Your task to perform on an android device: check storage Image 0: 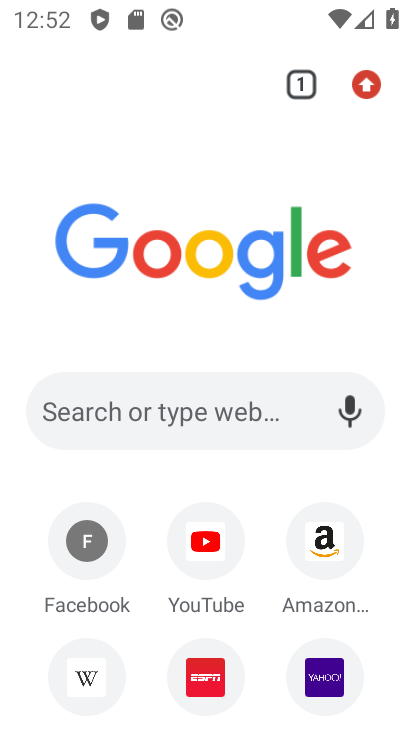
Step 0: press home button
Your task to perform on an android device: check storage Image 1: 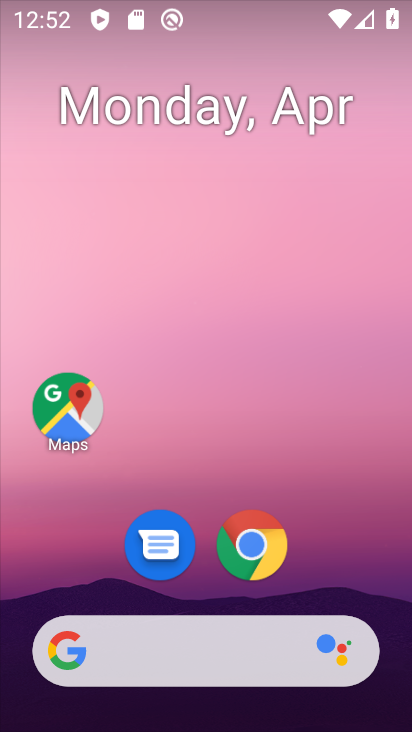
Step 1: drag from (224, 586) to (212, 163)
Your task to perform on an android device: check storage Image 2: 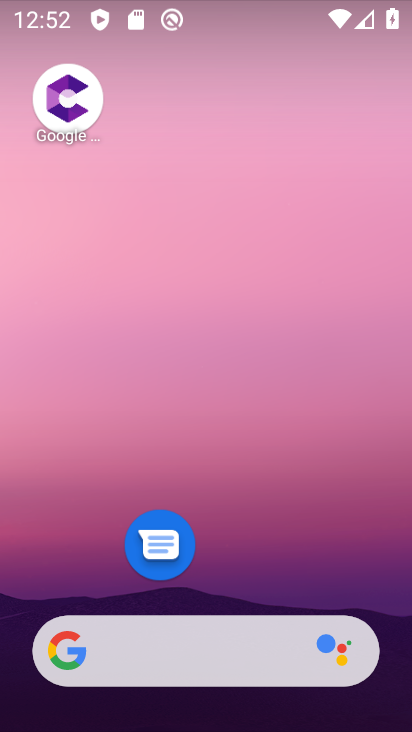
Step 2: drag from (238, 573) to (359, 54)
Your task to perform on an android device: check storage Image 3: 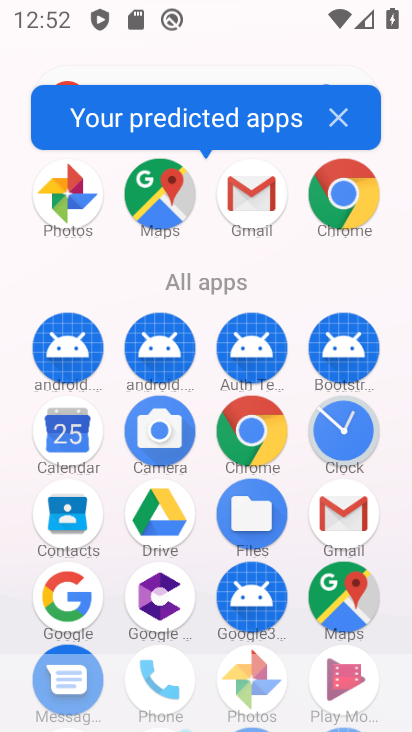
Step 3: drag from (197, 489) to (197, 125)
Your task to perform on an android device: check storage Image 4: 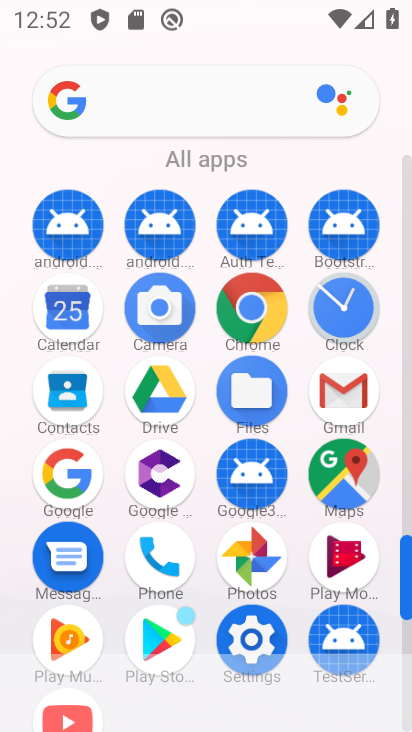
Step 4: click (244, 618)
Your task to perform on an android device: check storage Image 5: 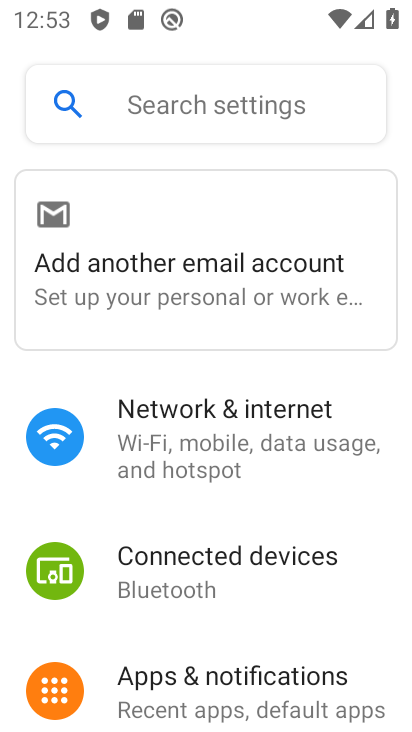
Step 5: drag from (172, 661) to (229, 257)
Your task to perform on an android device: check storage Image 6: 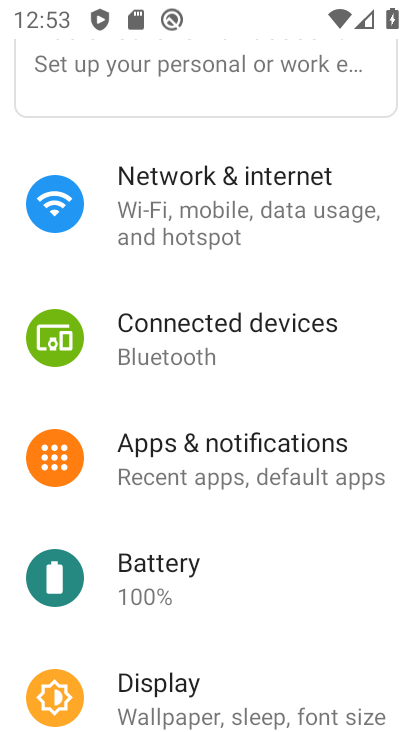
Step 6: drag from (135, 658) to (182, 272)
Your task to perform on an android device: check storage Image 7: 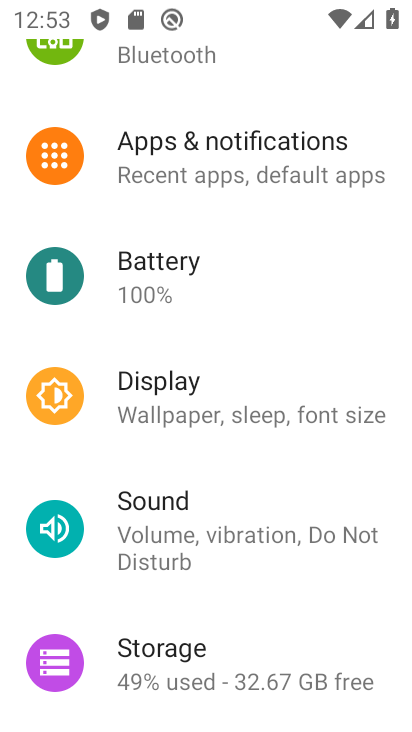
Step 7: click (133, 637)
Your task to perform on an android device: check storage Image 8: 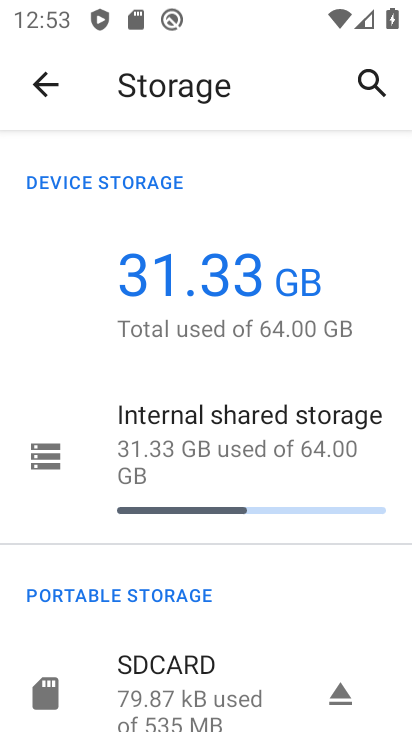
Step 8: task complete